Your task to perform on an android device: View the shopping cart on newegg.com. Search for logitech g pro on newegg.com, select the first entry, and add it to the cart. Image 0: 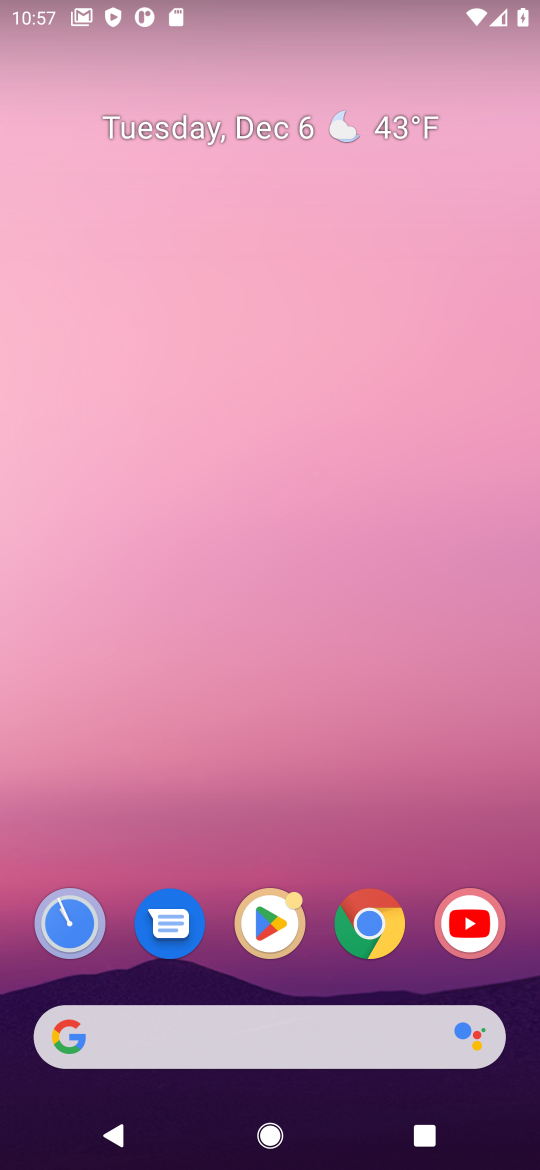
Step 0: task complete